Your task to perform on an android device: turn on showing notifications on the lock screen Image 0: 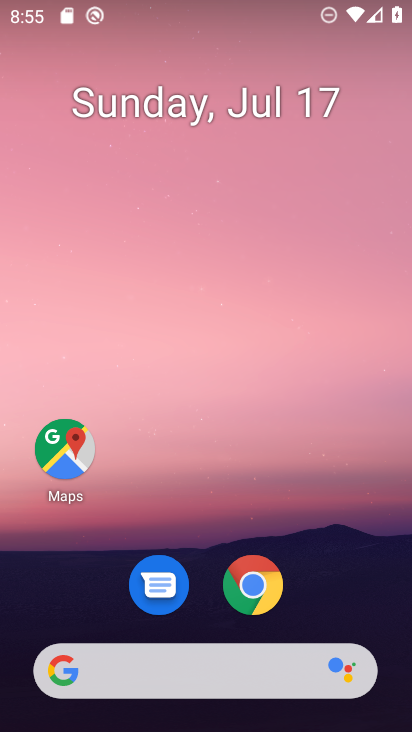
Step 0: drag from (186, 668) to (325, 65)
Your task to perform on an android device: turn on showing notifications on the lock screen Image 1: 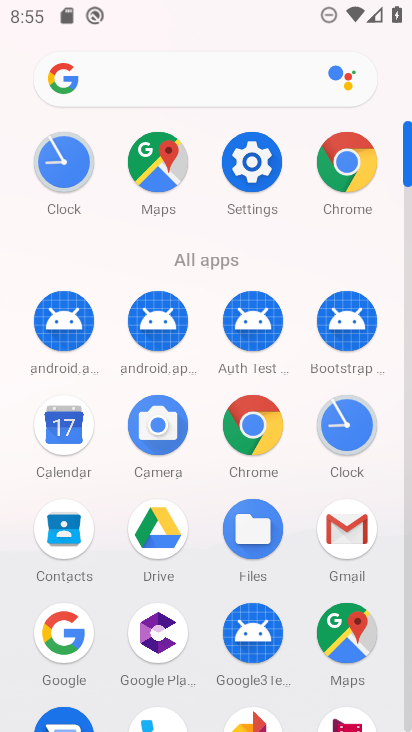
Step 1: click (265, 158)
Your task to perform on an android device: turn on showing notifications on the lock screen Image 2: 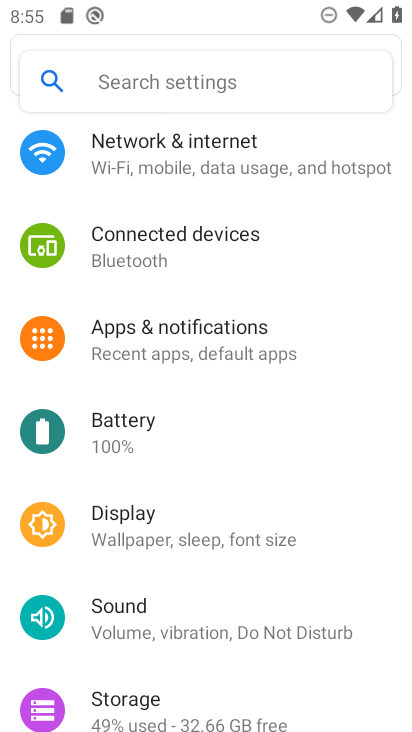
Step 2: click (230, 351)
Your task to perform on an android device: turn on showing notifications on the lock screen Image 3: 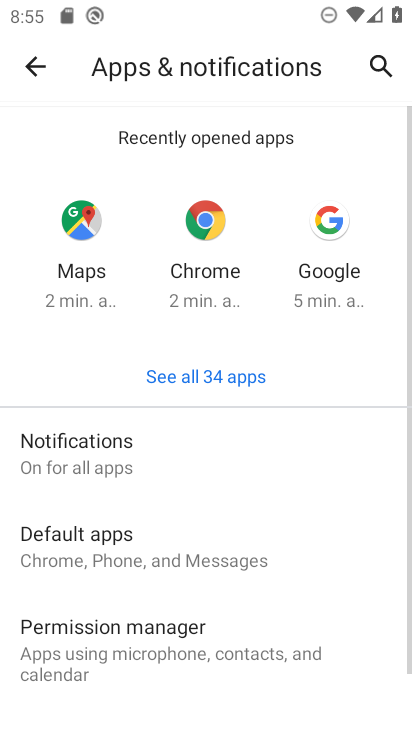
Step 3: click (92, 439)
Your task to perform on an android device: turn on showing notifications on the lock screen Image 4: 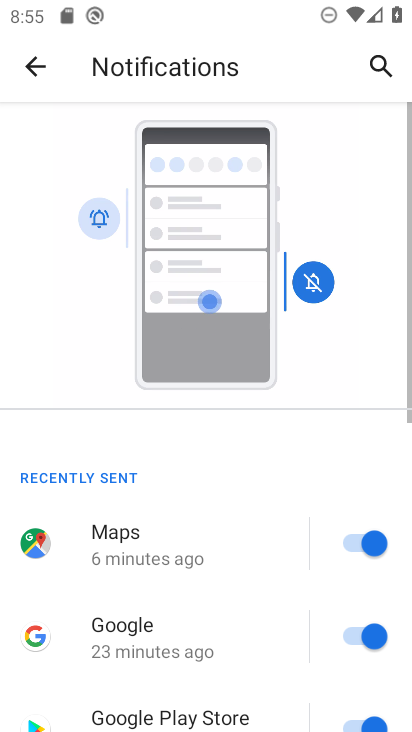
Step 4: drag from (206, 641) to (308, 106)
Your task to perform on an android device: turn on showing notifications on the lock screen Image 5: 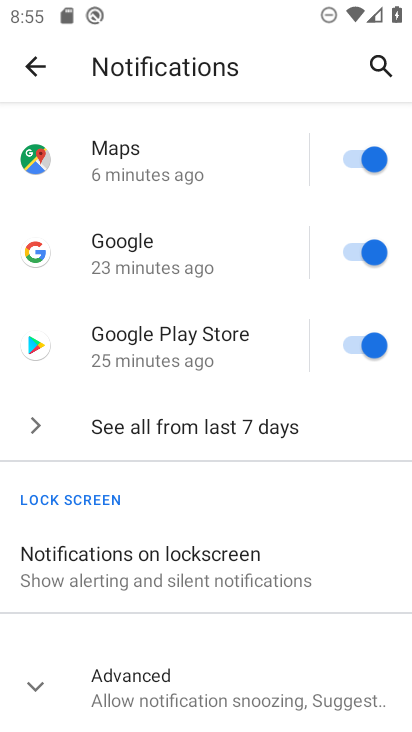
Step 5: click (206, 566)
Your task to perform on an android device: turn on showing notifications on the lock screen Image 6: 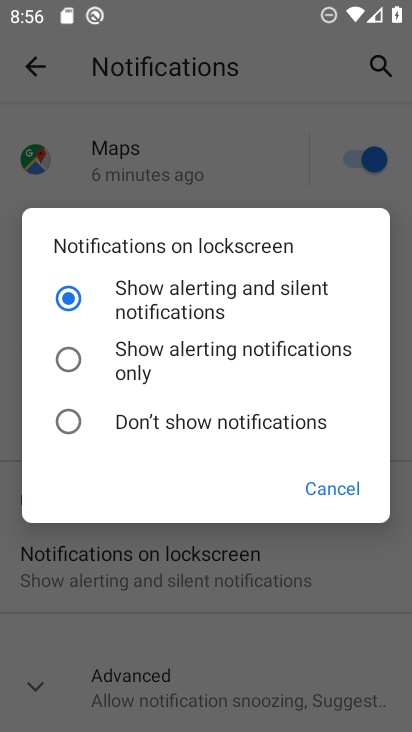
Step 6: task complete